Your task to perform on an android device: show emergency info Image 0: 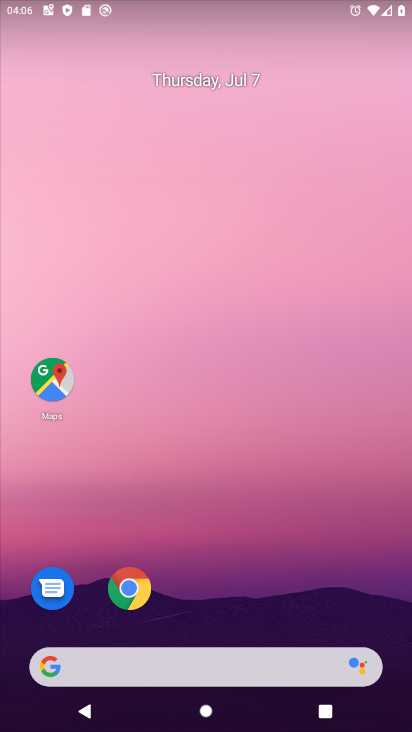
Step 0: drag from (194, 595) to (232, 221)
Your task to perform on an android device: show emergency info Image 1: 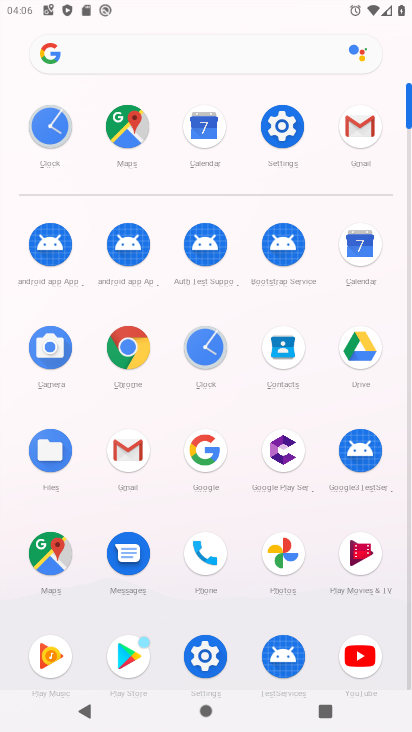
Step 1: click (283, 114)
Your task to perform on an android device: show emergency info Image 2: 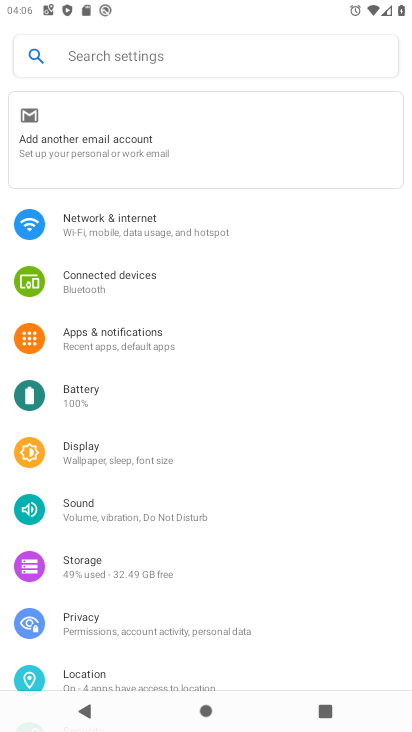
Step 2: drag from (84, 655) to (76, 296)
Your task to perform on an android device: show emergency info Image 3: 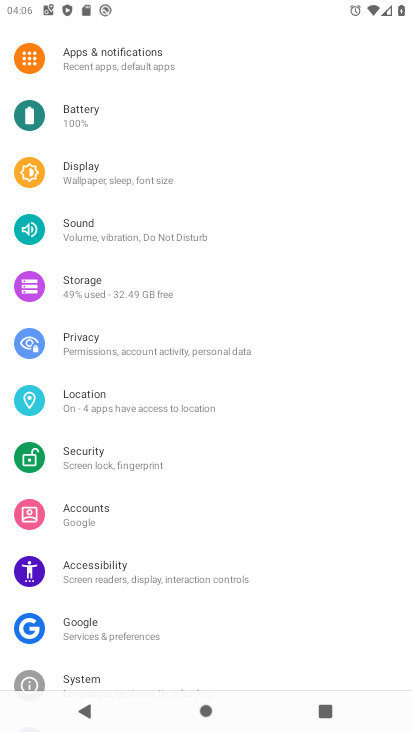
Step 3: drag from (97, 669) to (109, 351)
Your task to perform on an android device: show emergency info Image 4: 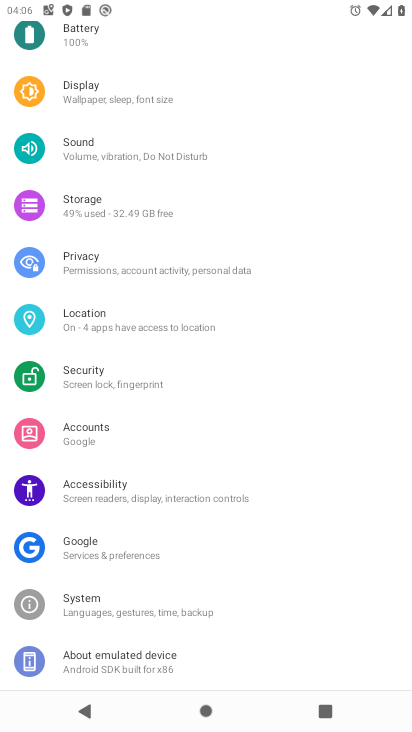
Step 4: click (84, 669)
Your task to perform on an android device: show emergency info Image 5: 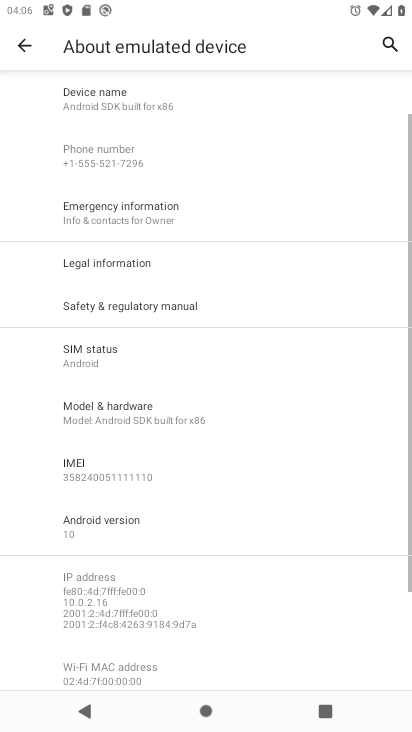
Step 5: click (106, 206)
Your task to perform on an android device: show emergency info Image 6: 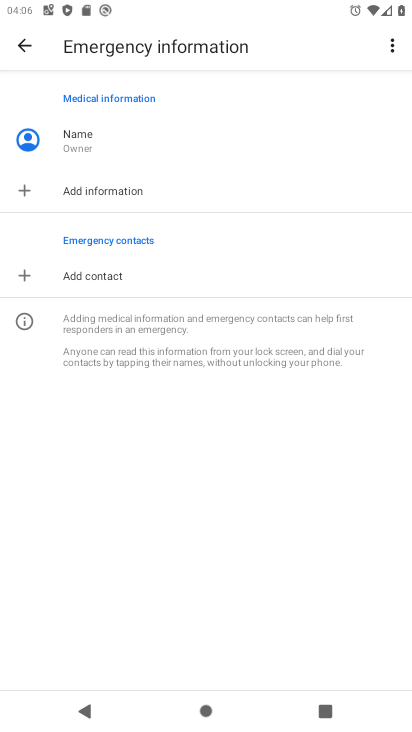
Step 6: task complete